Your task to perform on an android device: Open maps Image 0: 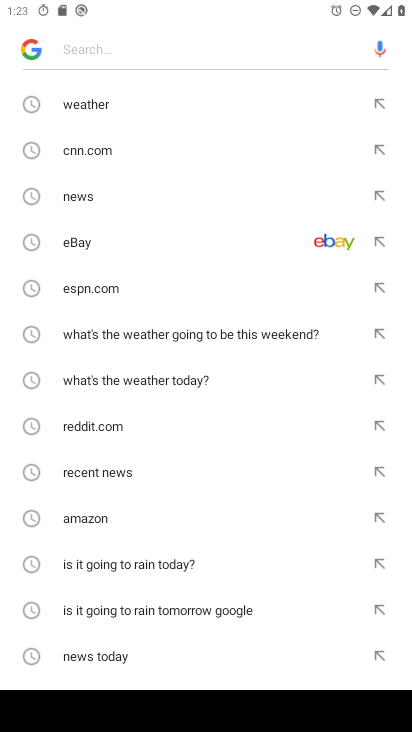
Step 0: press home button
Your task to perform on an android device: Open maps Image 1: 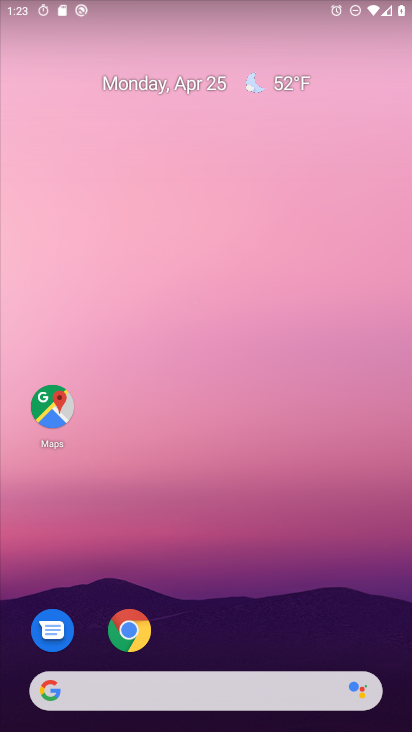
Step 1: drag from (204, 508) to (266, 140)
Your task to perform on an android device: Open maps Image 2: 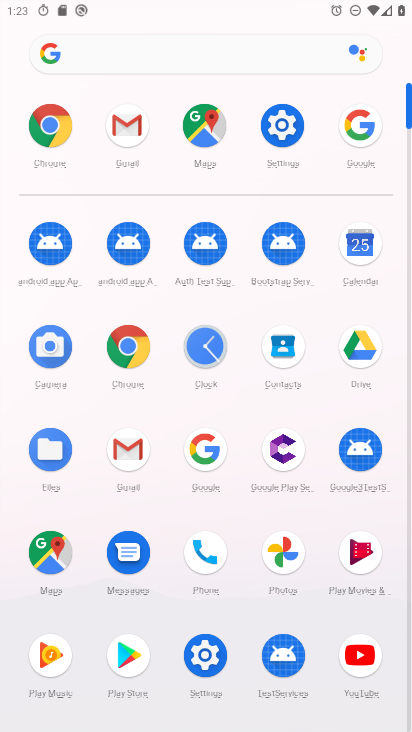
Step 2: click (56, 556)
Your task to perform on an android device: Open maps Image 3: 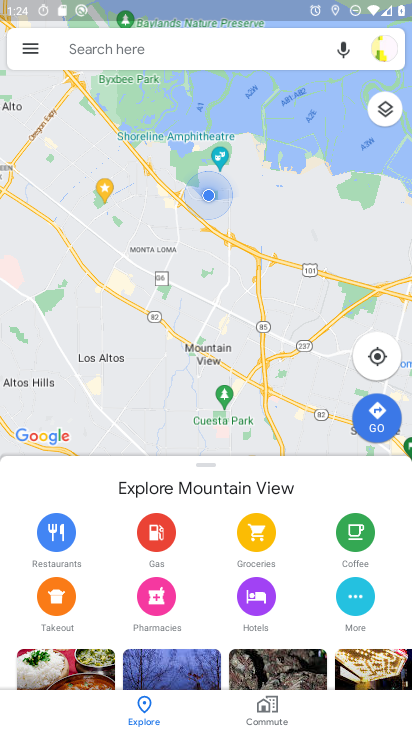
Step 3: click (301, 92)
Your task to perform on an android device: Open maps Image 4: 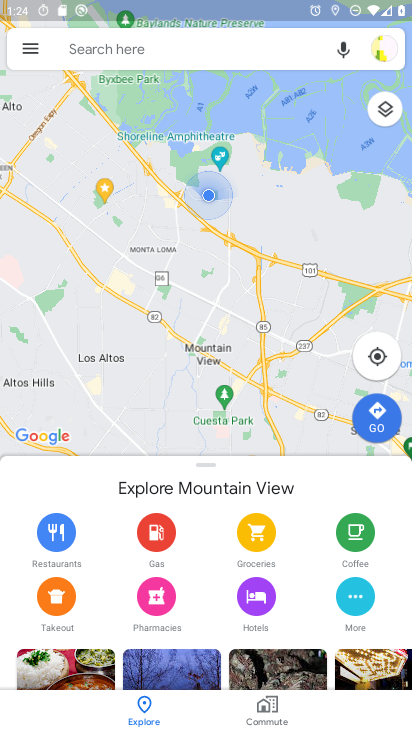
Step 4: task complete